Your task to perform on an android device: Go to CNN.com Image 0: 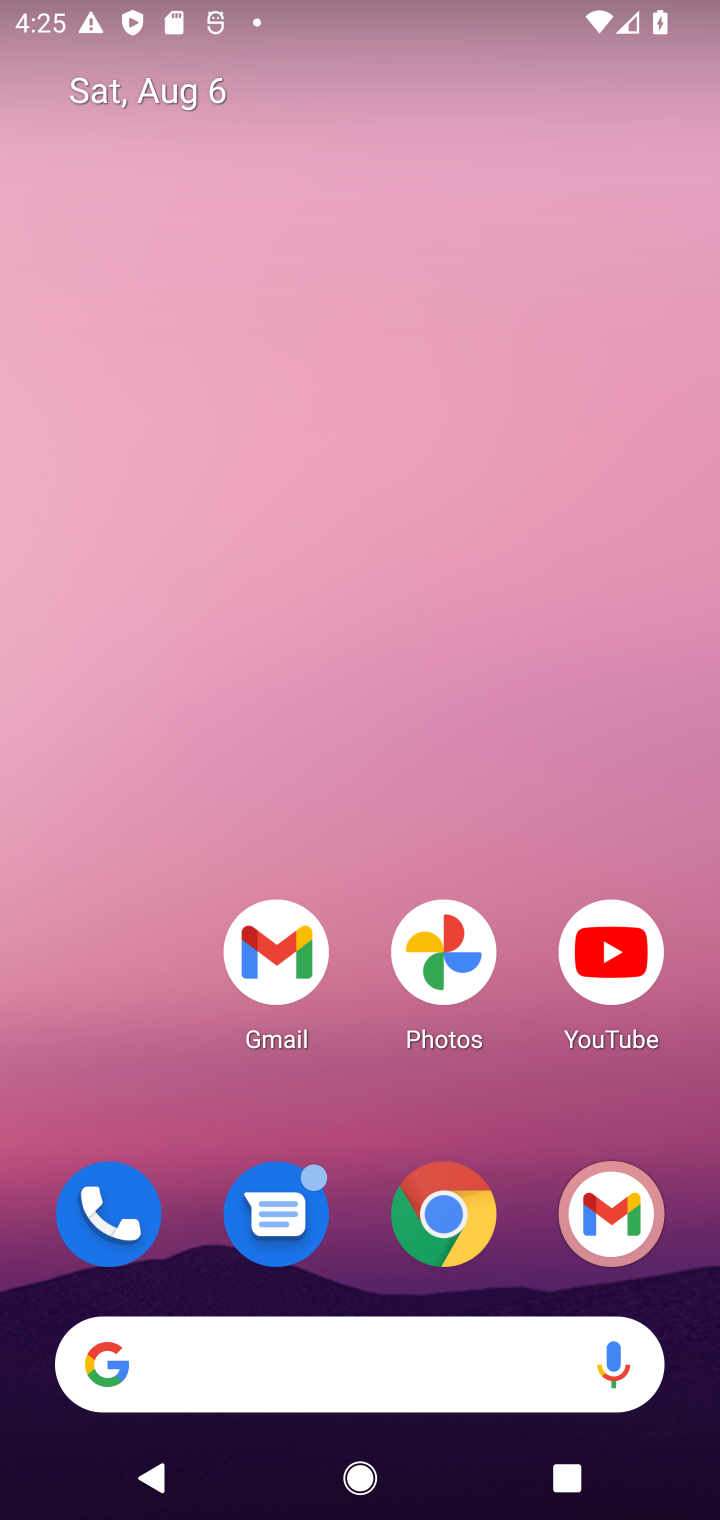
Step 0: click (469, 1223)
Your task to perform on an android device: Go to CNN.com Image 1: 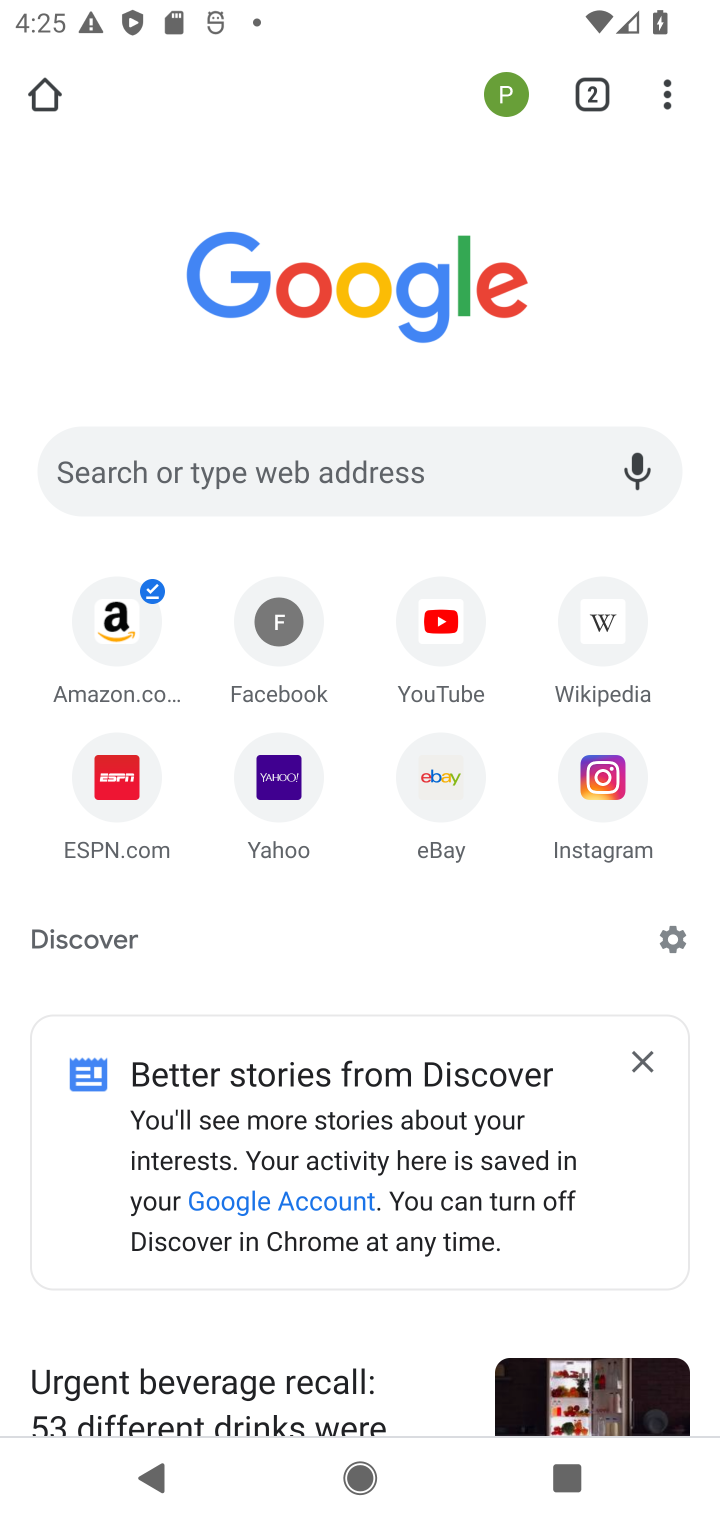
Step 1: click (362, 476)
Your task to perform on an android device: Go to CNN.com Image 2: 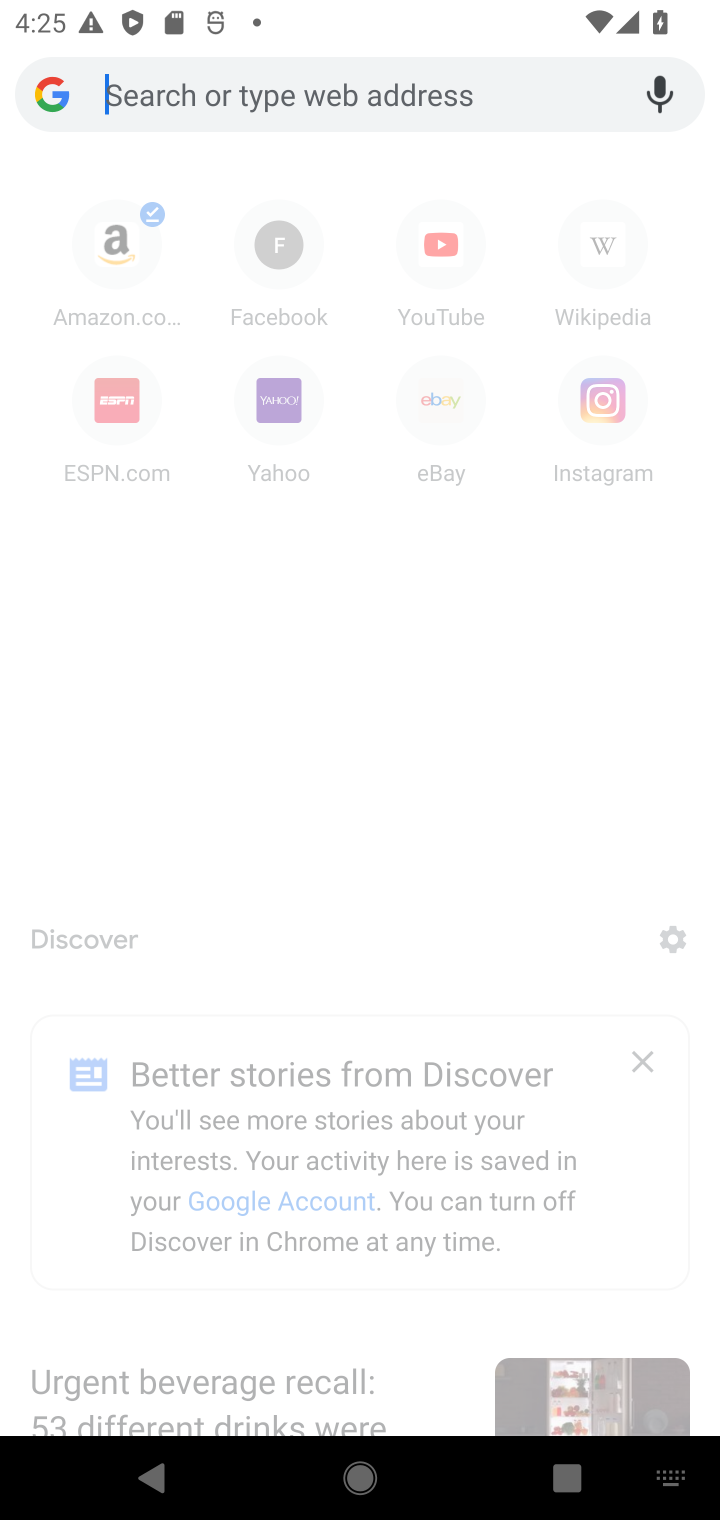
Step 2: type "www.cnn.com"
Your task to perform on an android device: Go to CNN.com Image 3: 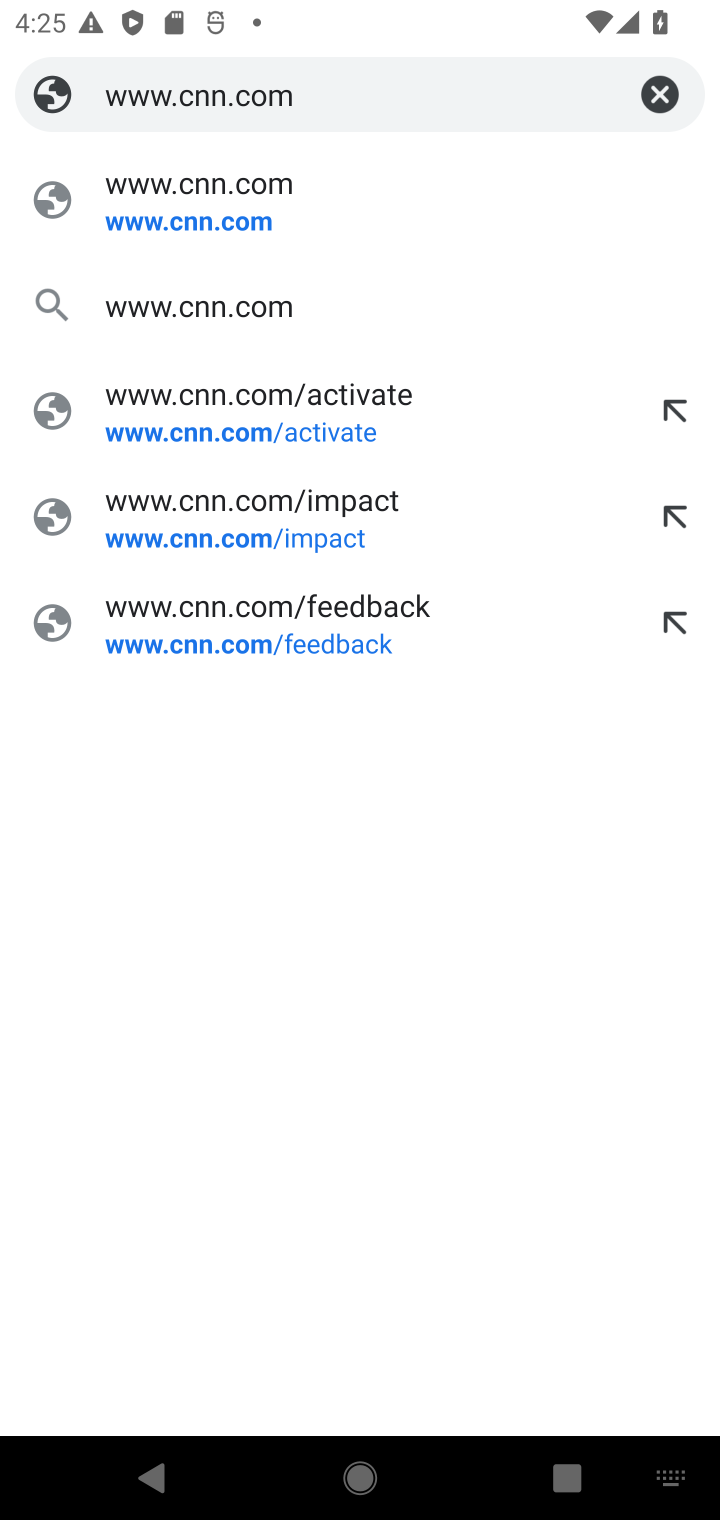
Step 3: click (252, 203)
Your task to perform on an android device: Go to CNN.com Image 4: 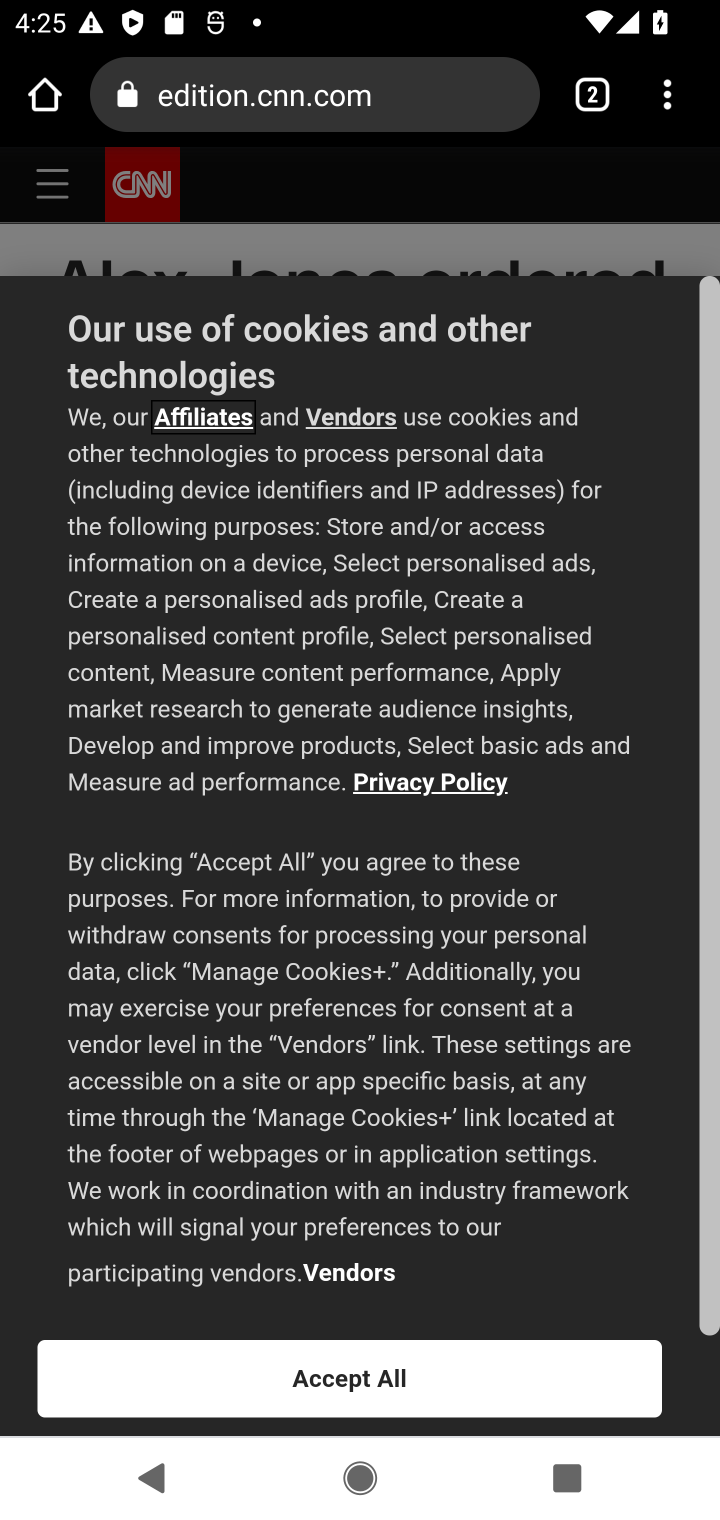
Step 4: task complete